Your task to perform on an android device: install app "eBay: The shopping marketplace" Image 0: 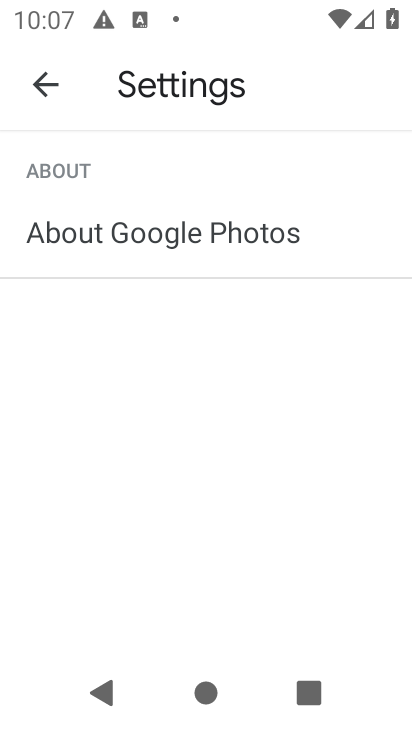
Step 0: press home button
Your task to perform on an android device: install app "eBay: The shopping marketplace" Image 1: 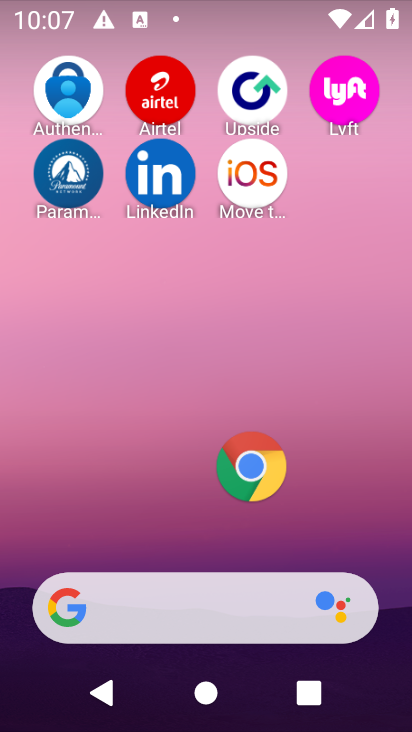
Step 1: drag from (151, 527) to (210, 71)
Your task to perform on an android device: install app "eBay: The shopping marketplace" Image 2: 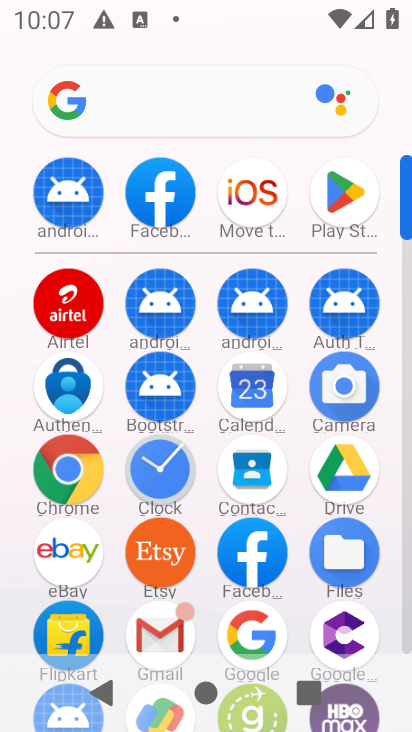
Step 2: drag from (232, 598) to (251, 183)
Your task to perform on an android device: install app "eBay: The shopping marketplace" Image 3: 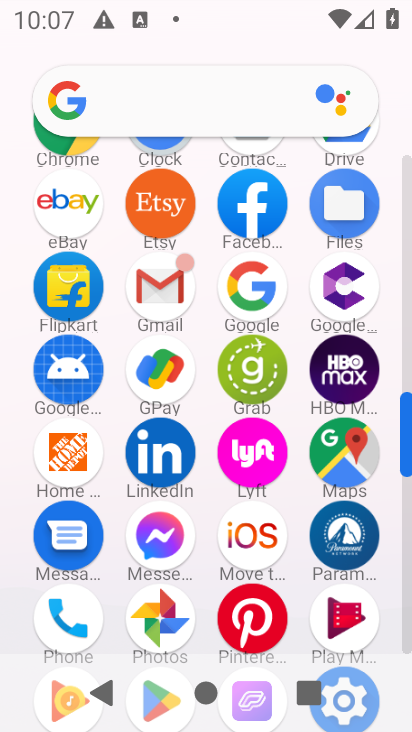
Step 3: click (59, 202)
Your task to perform on an android device: install app "eBay: The shopping marketplace" Image 4: 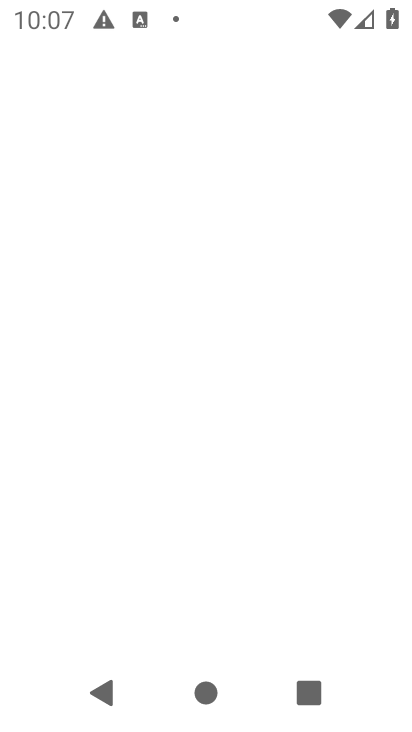
Step 4: task complete